Your task to perform on an android device: Search for sushi restaurants on Maps Image 0: 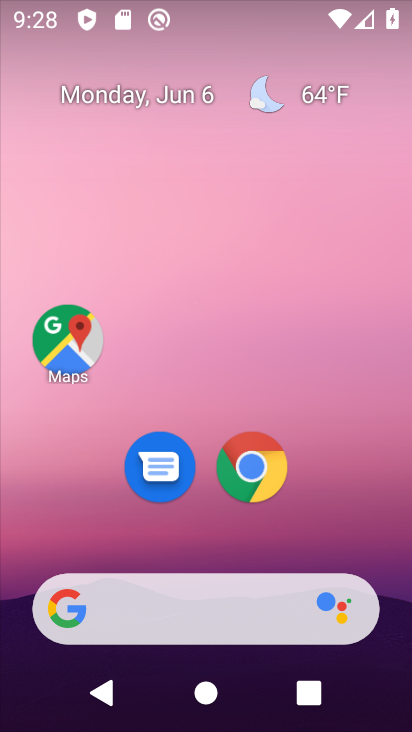
Step 0: click (75, 340)
Your task to perform on an android device: Search for sushi restaurants on Maps Image 1: 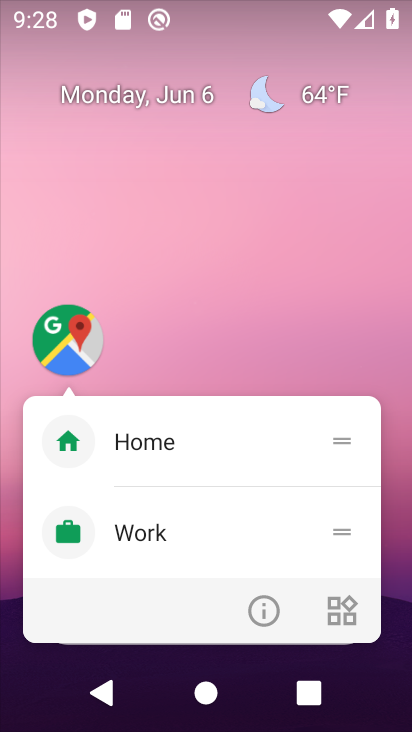
Step 1: click (75, 340)
Your task to perform on an android device: Search for sushi restaurants on Maps Image 2: 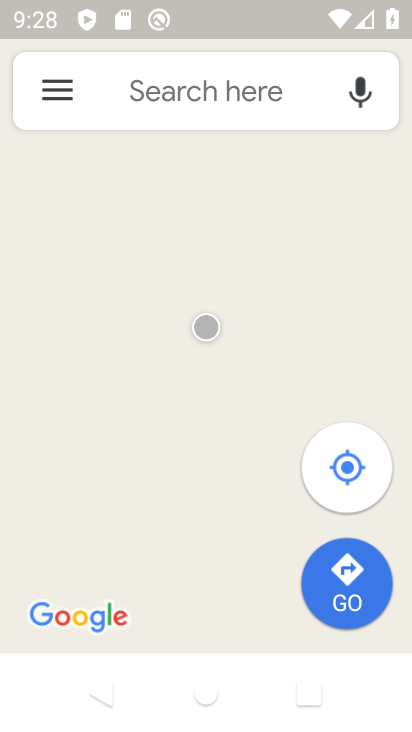
Step 2: click (169, 109)
Your task to perform on an android device: Search for sushi restaurants on Maps Image 3: 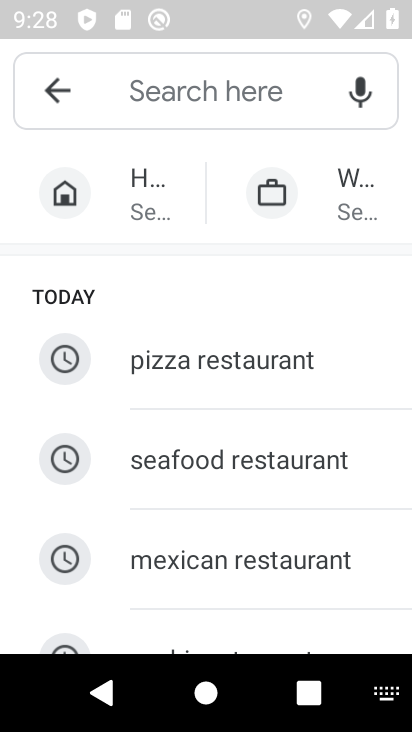
Step 3: type "sushi restaurants"
Your task to perform on an android device: Search for sushi restaurants on Maps Image 4: 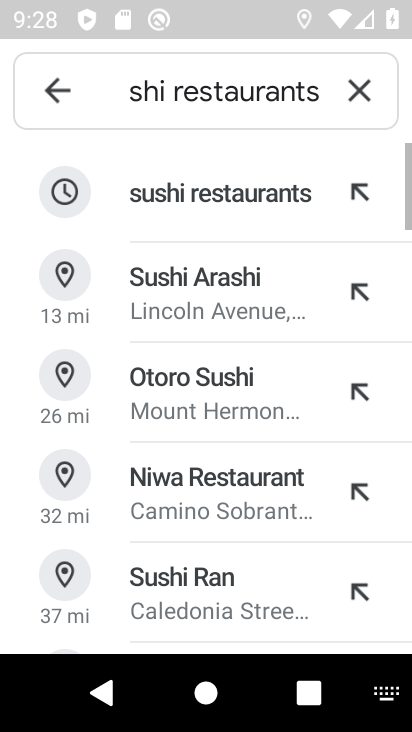
Step 4: click (247, 211)
Your task to perform on an android device: Search for sushi restaurants on Maps Image 5: 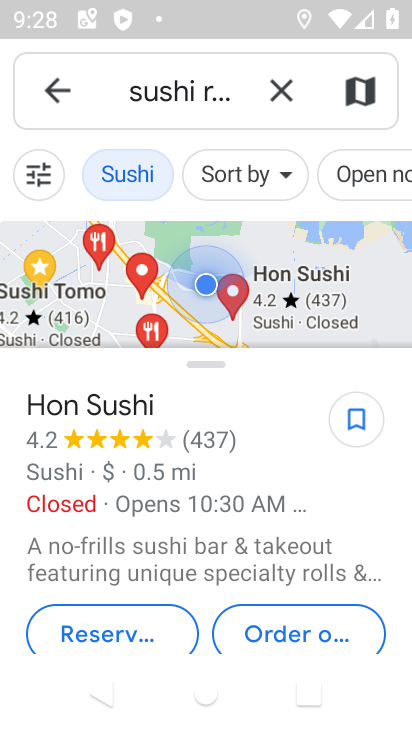
Step 5: task complete